Your task to perform on an android device: set the timer Image 0: 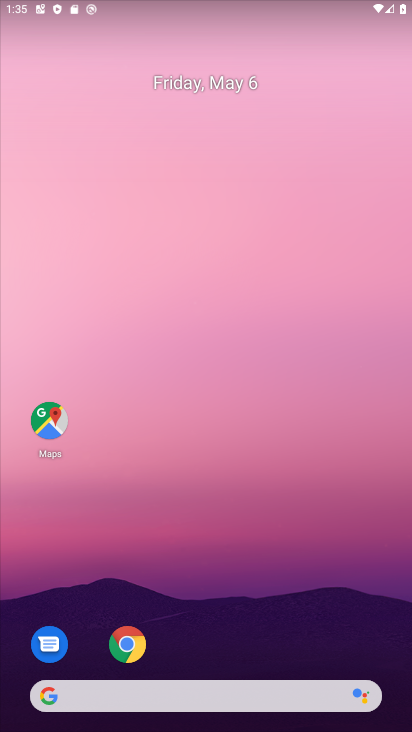
Step 0: drag from (130, 731) to (130, 146)
Your task to perform on an android device: set the timer Image 1: 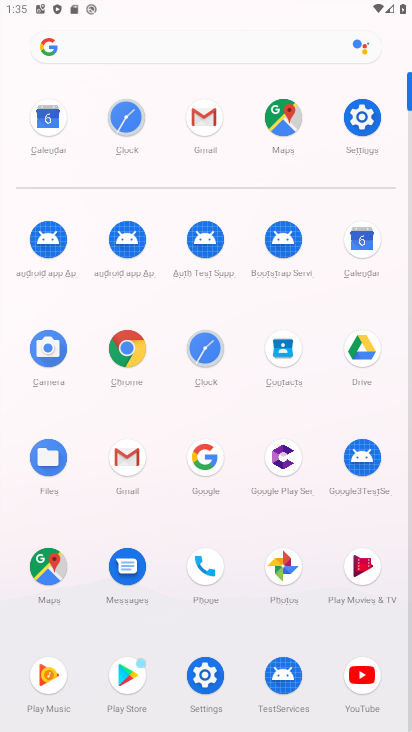
Step 1: click (192, 346)
Your task to perform on an android device: set the timer Image 2: 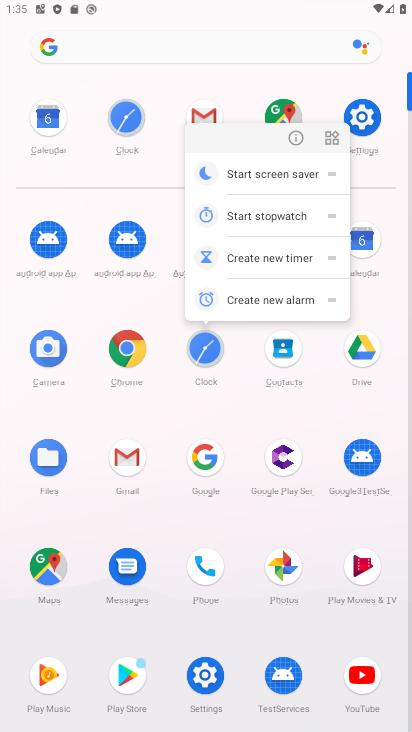
Step 2: click (203, 355)
Your task to perform on an android device: set the timer Image 3: 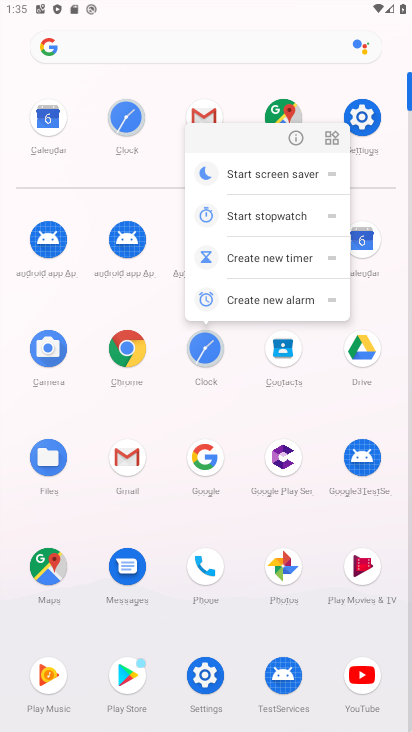
Step 3: click (203, 355)
Your task to perform on an android device: set the timer Image 4: 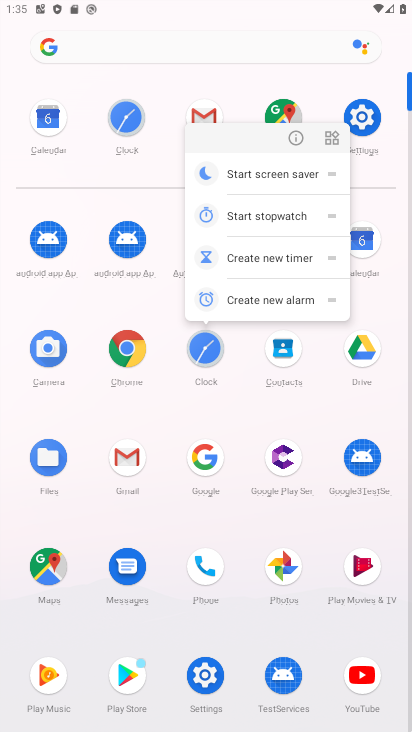
Step 4: click (203, 355)
Your task to perform on an android device: set the timer Image 5: 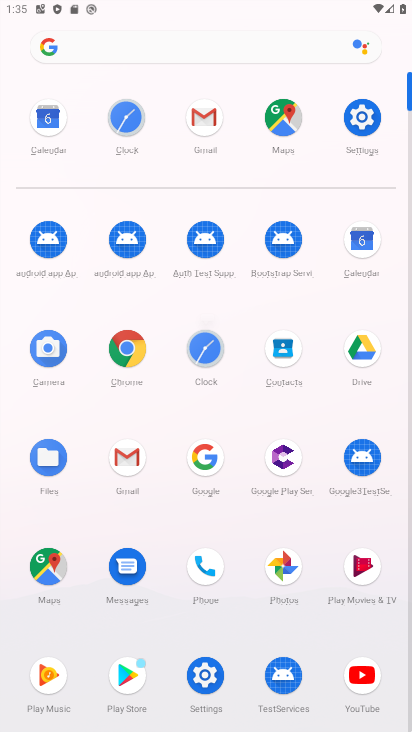
Step 5: click (203, 355)
Your task to perform on an android device: set the timer Image 6: 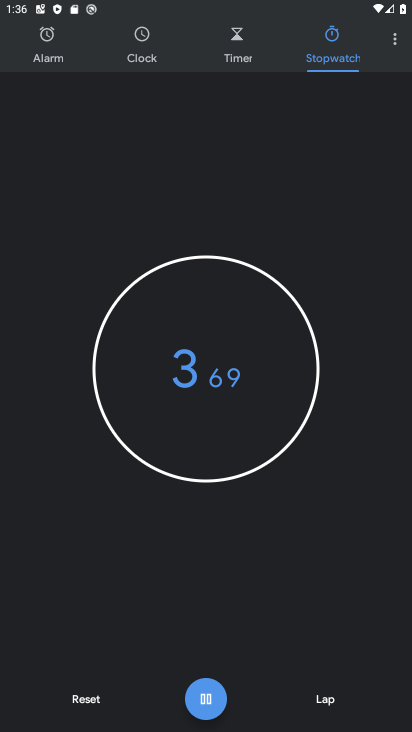
Step 6: click (242, 53)
Your task to perform on an android device: set the timer Image 7: 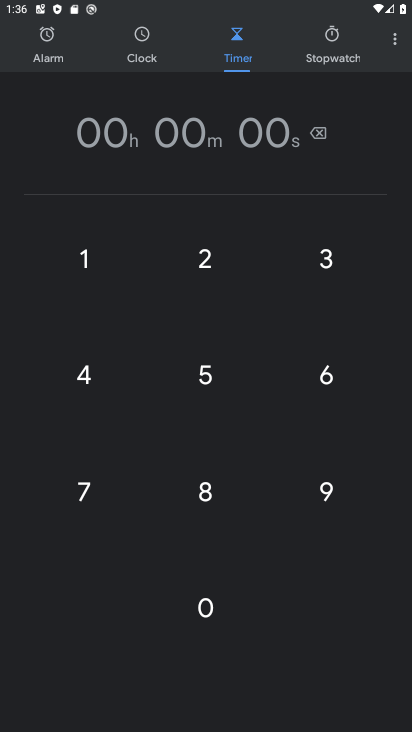
Step 7: click (197, 242)
Your task to perform on an android device: set the timer Image 8: 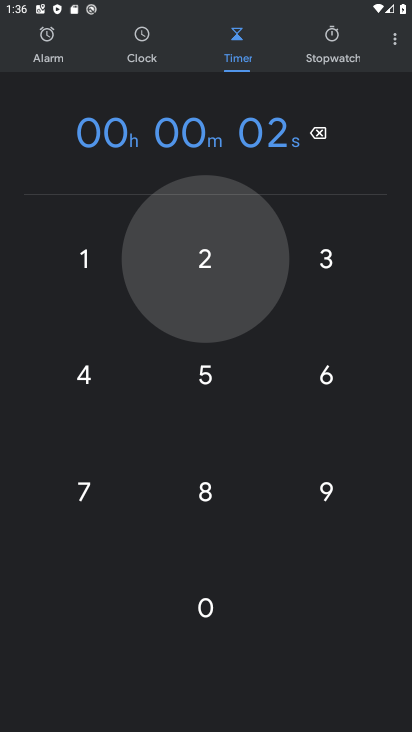
Step 8: click (204, 407)
Your task to perform on an android device: set the timer Image 9: 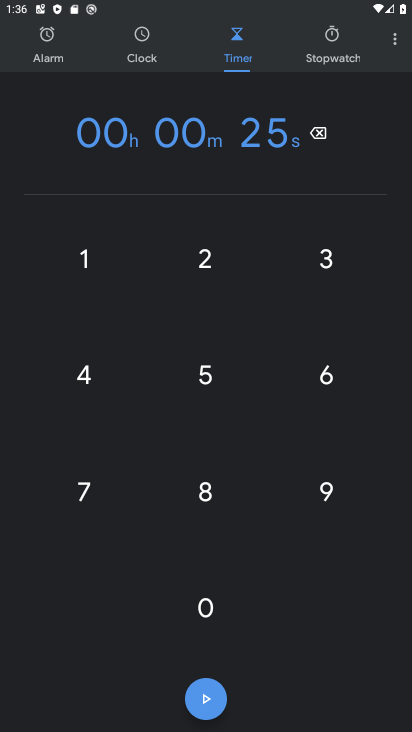
Step 9: task complete